Your task to perform on an android device: Go to CNN.com Image 0: 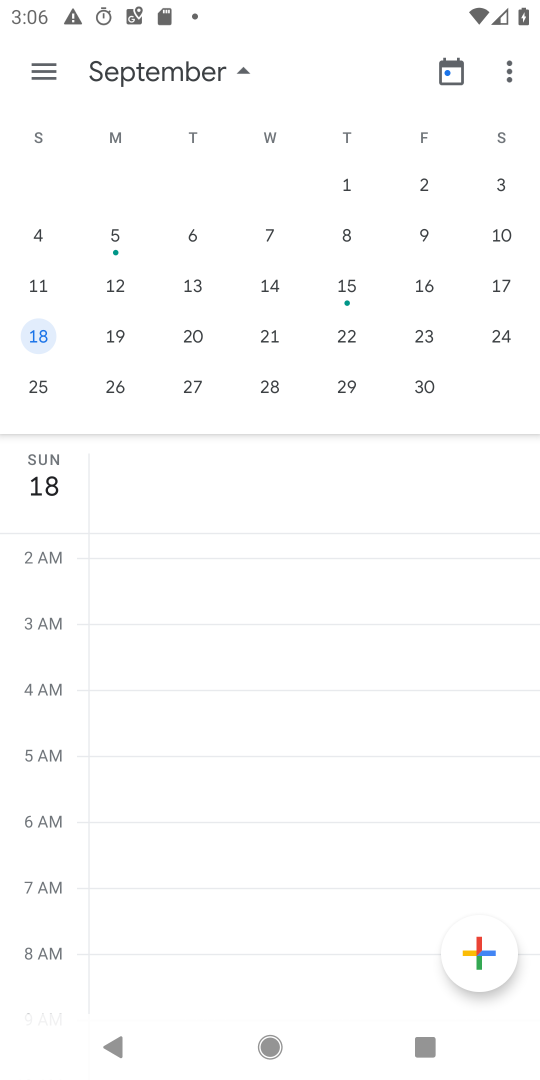
Step 0: press home button
Your task to perform on an android device: Go to CNN.com Image 1: 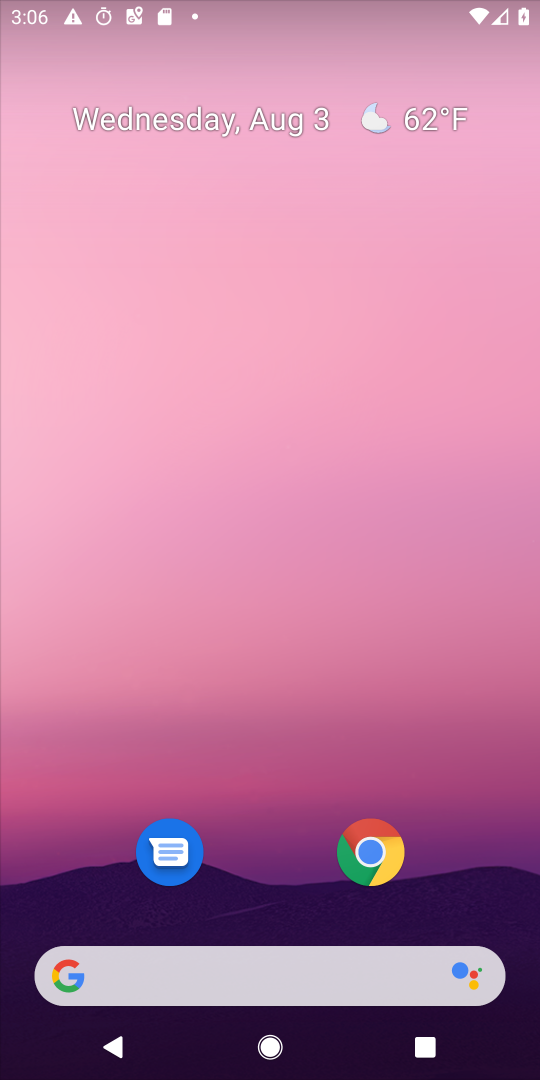
Step 1: drag from (492, 940) to (218, 11)
Your task to perform on an android device: Go to CNN.com Image 2: 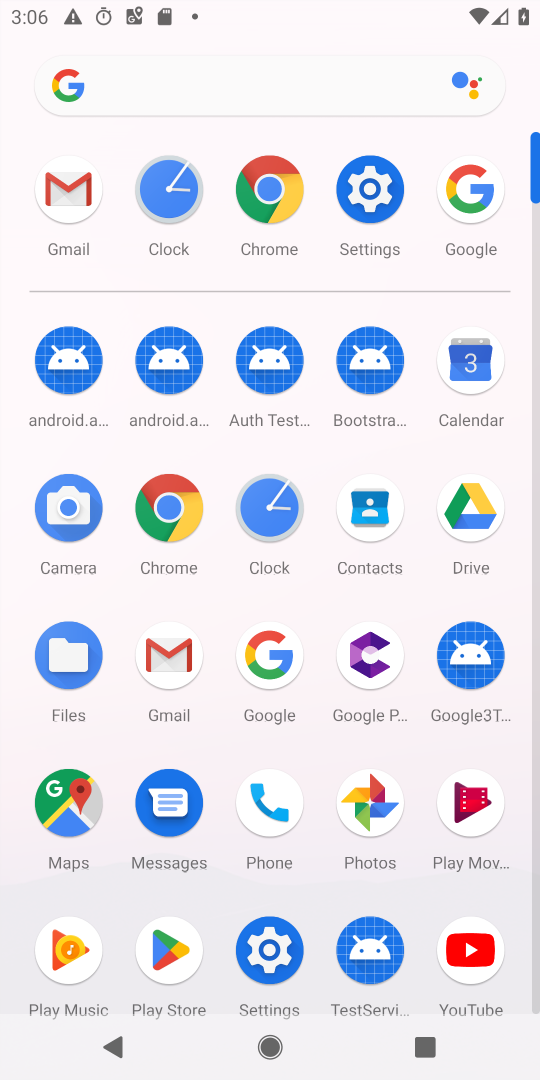
Step 2: click (272, 685)
Your task to perform on an android device: Go to CNN.com Image 3: 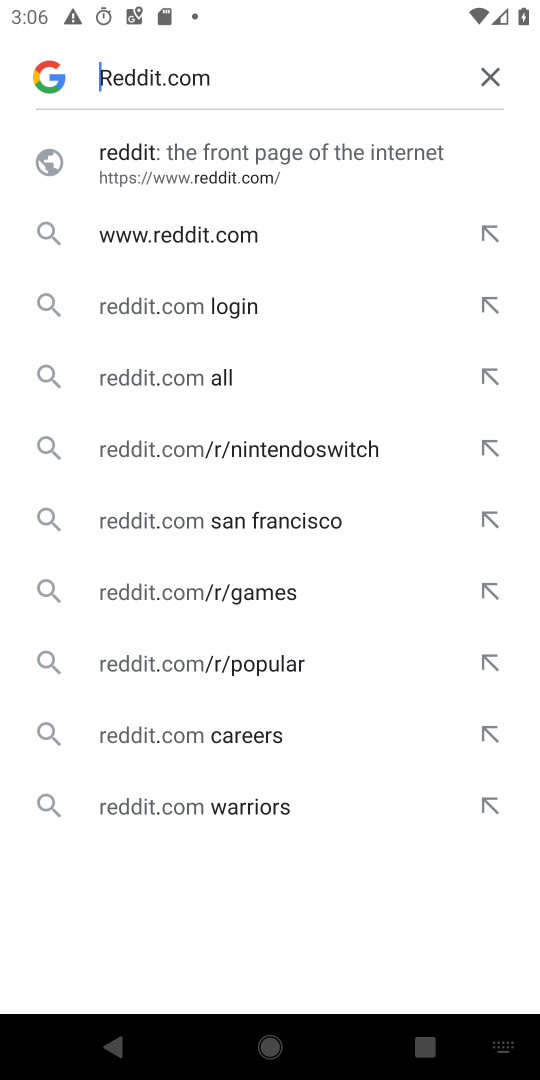
Step 3: click (505, 65)
Your task to perform on an android device: Go to CNN.com Image 4: 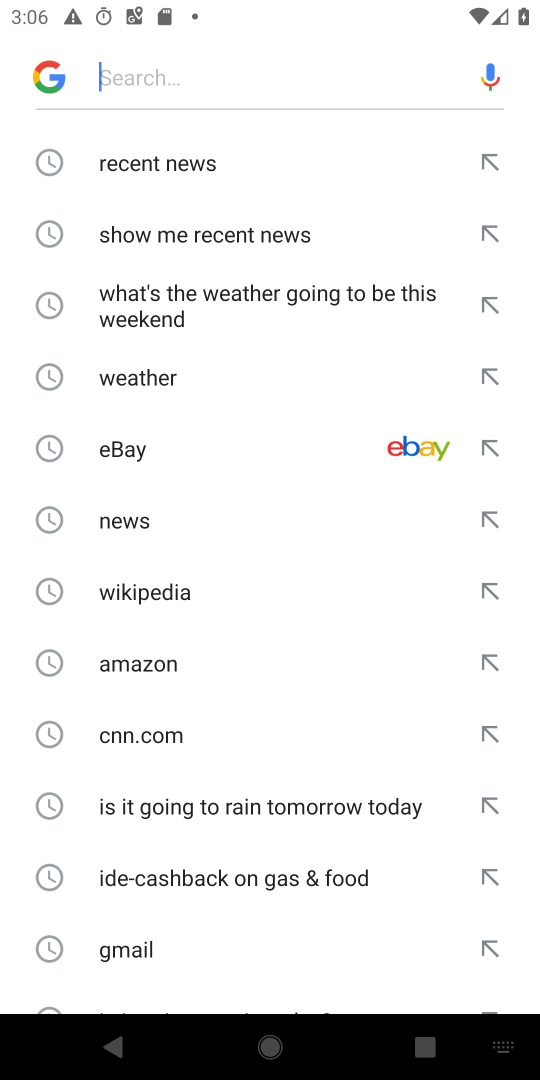
Step 4: click (162, 745)
Your task to perform on an android device: Go to CNN.com Image 5: 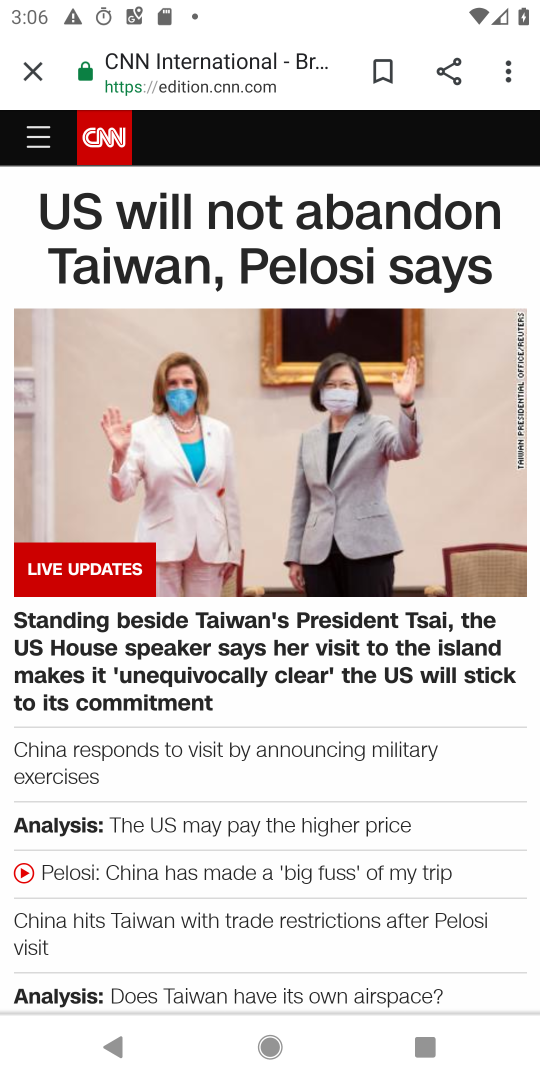
Step 5: task complete